Your task to perform on an android device: toggle translation in the chrome app Image 0: 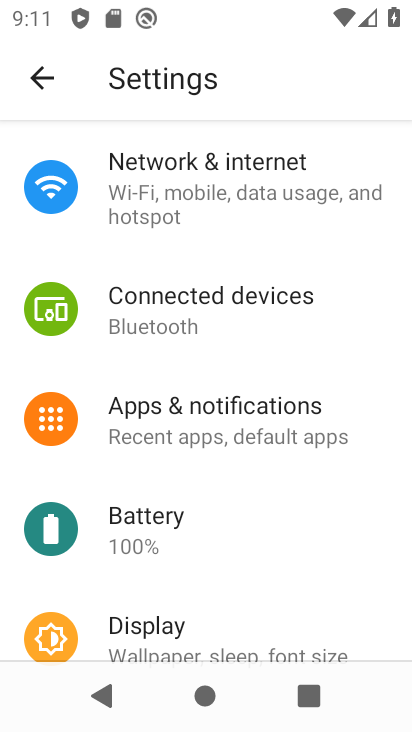
Step 0: press home button
Your task to perform on an android device: toggle translation in the chrome app Image 1: 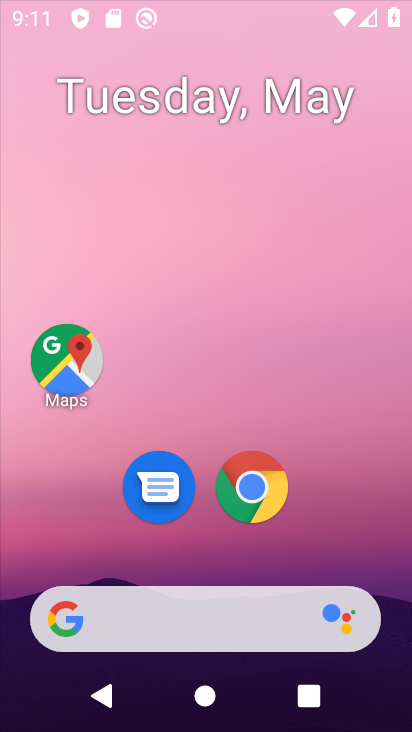
Step 1: drag from (183, 619) to (194, 0)
Your task to perform on an android device: toggle translation in the chrome app Image 2: 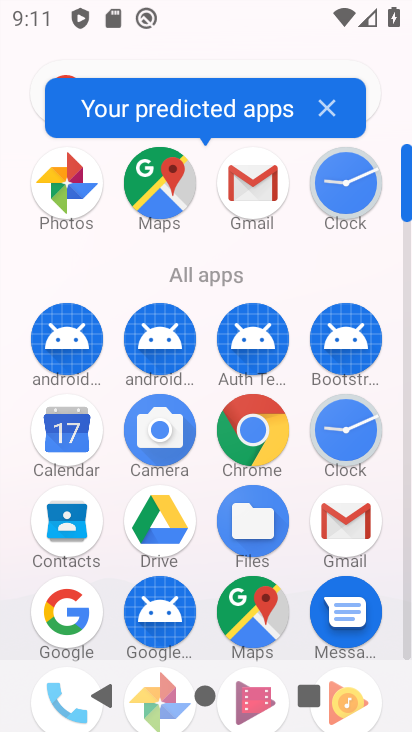
Step 2: click (260, 444)
Your task to perform on an android device: toggle translation in the chrome app Image 3: 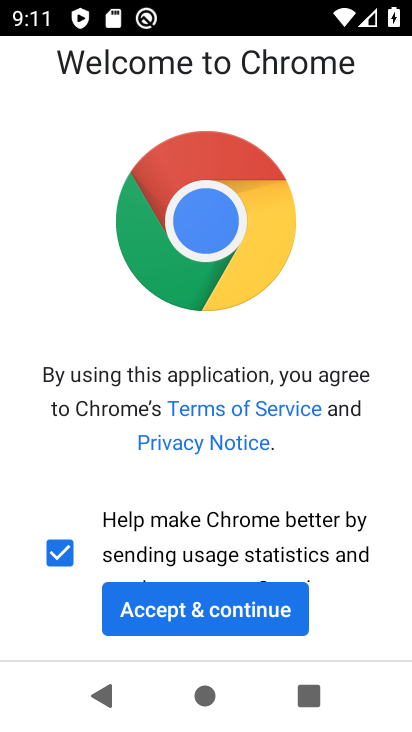
Step 3: click (155, 637)
Your task to perform on an android device: toggle translation in the chrome app Image 4: 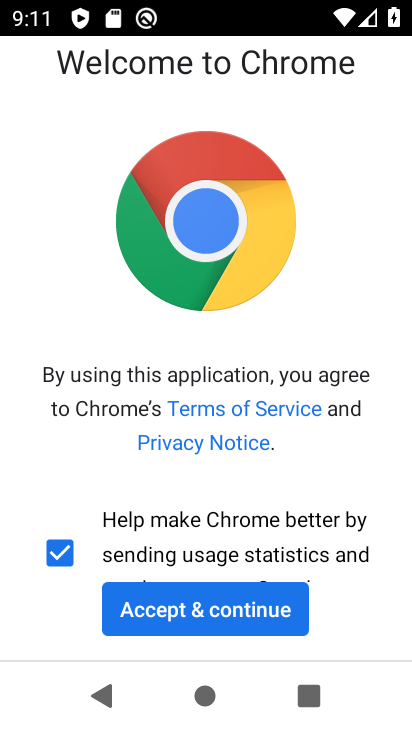
Step 4: click (159, 622)
Your task to perform on an android device: toggle translation in the chrome app Image 5: 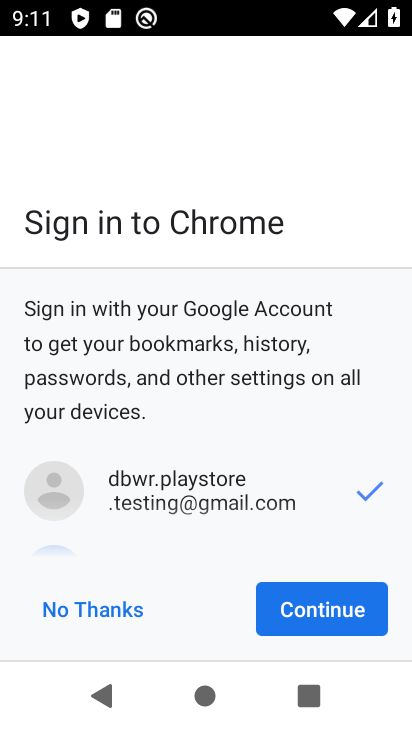
Step 5: click (310, 625)
Your task to perform on an android device: toggle translation in the chrome app Image 6: 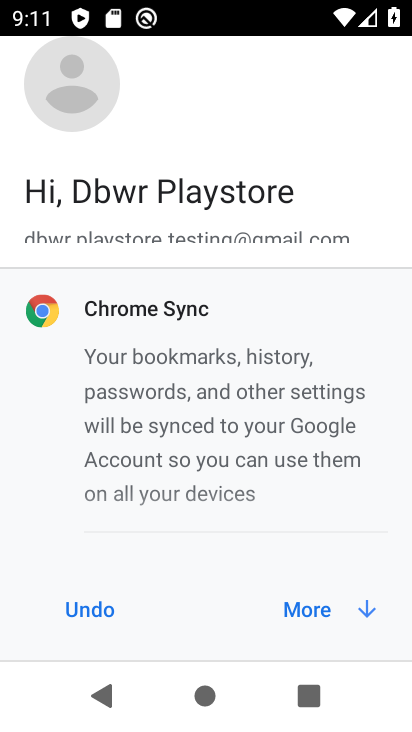
Step 6: click (319, 623)
Your task to perform on an android device: toggle translation in the chrome app Image 7: 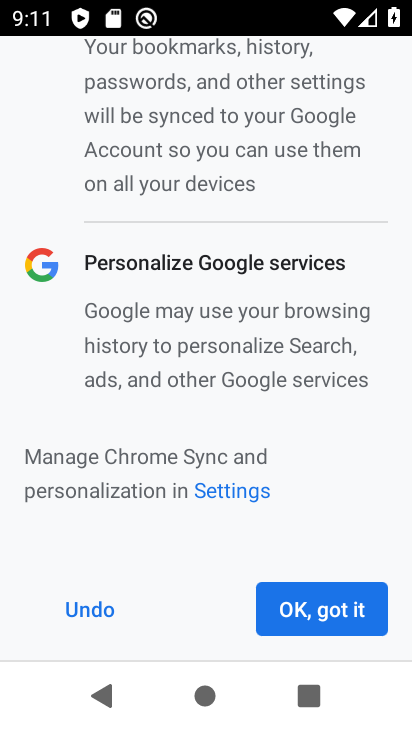
Step 7: click (318, 603)
Your task to perform on an android device: toggle translation in the chrome app Image 8: 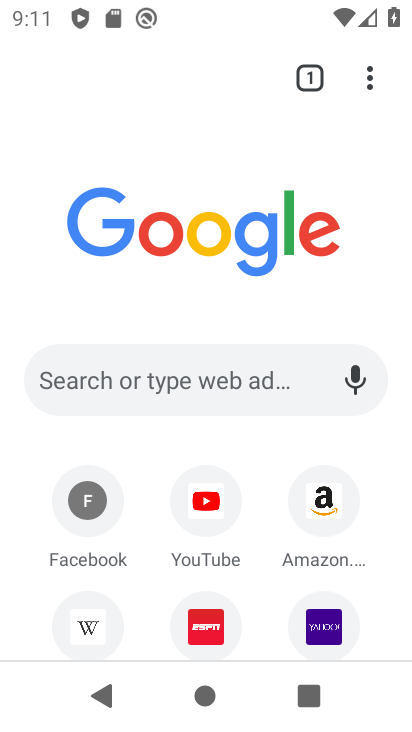
Step 8: drag from (269, 531) to (278, 295)
Your task to perform on an android device: toggle translation in the chrome app Image 9: 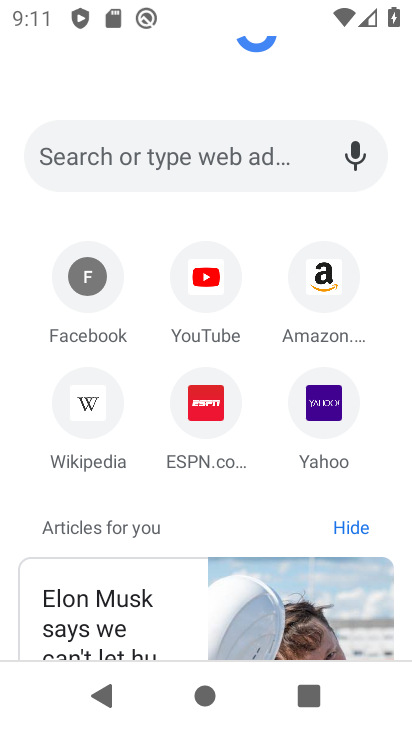
Step 9: drag from (275, 92) to (373, 555)
Your task to perform on an android device: toggle translation in the chrome app Image 10: 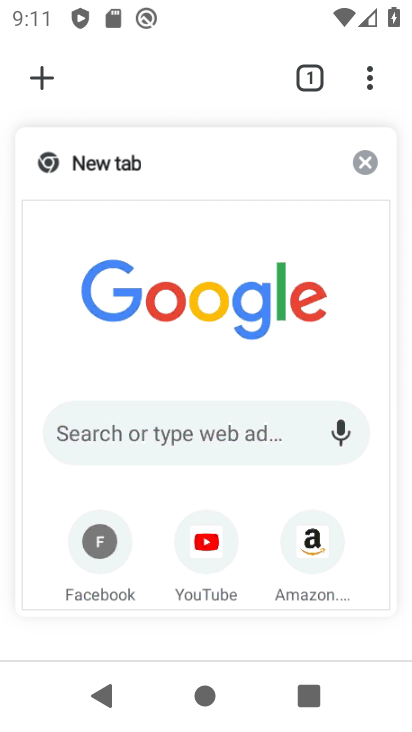
Step 10: click (309, 225)
Your task to perform on an android device: toggle translation in the chrome app Image 11: 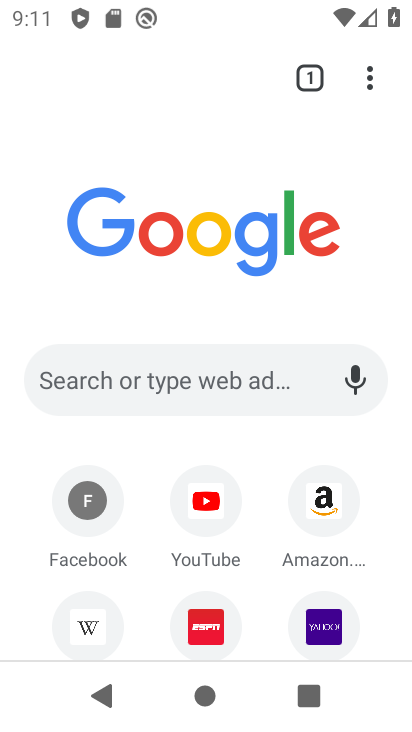
Step 11: click (379, 82)
Your task to perform on an android device: toggle translation in the chrome app Image 12: 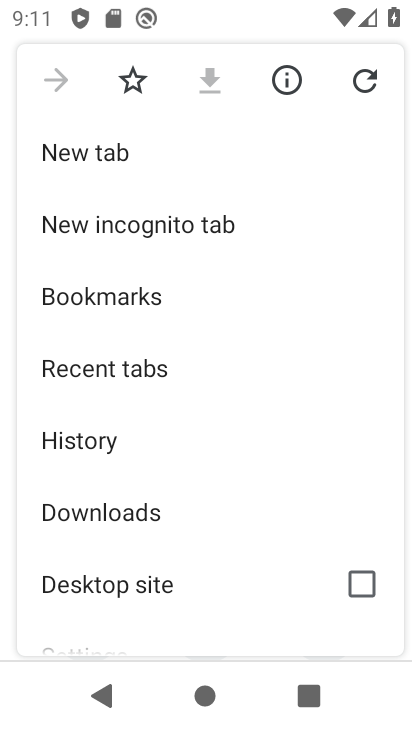
Step 12: drag from (221, 488) to (231, 147)
Your task to perform on an android device: toggle translation in the chrome app Image 13: 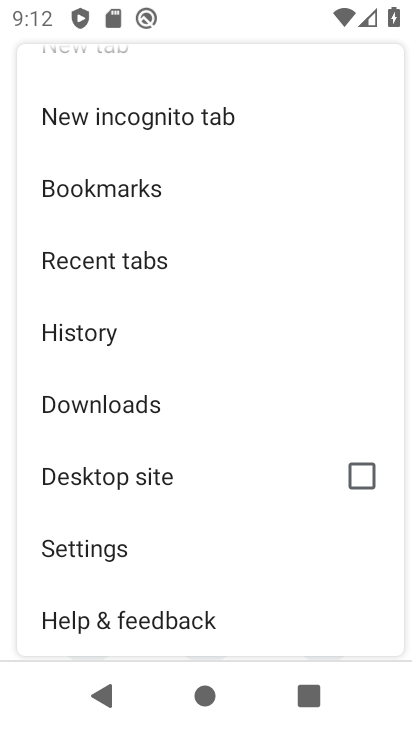
Step 13: click (175, 558)
Your task to perform on an android device: toggle translation in the chrome app Image 14: 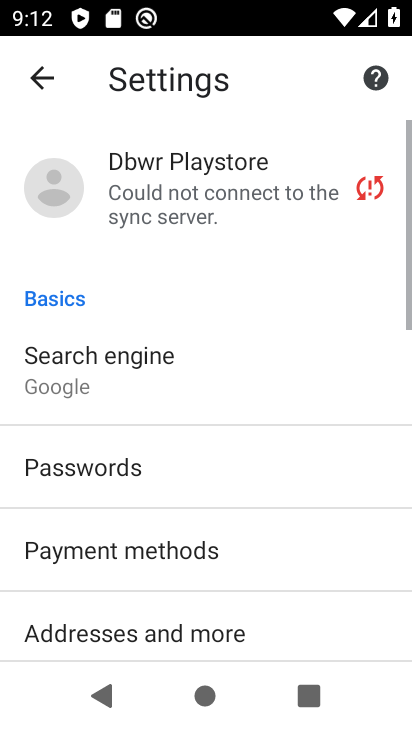
Step 14: drag from (195, 573) to (254, 118)
Your task to perform on an android device: toggle translation in the chrome app Image 15: 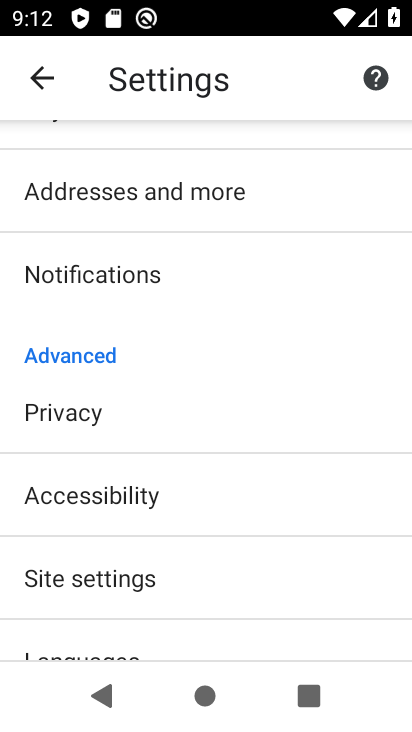
Step 15: drag from (188, 548) to (270, 125)
Your task to perform on an android device: toggle translation in the chrome app Image 16: 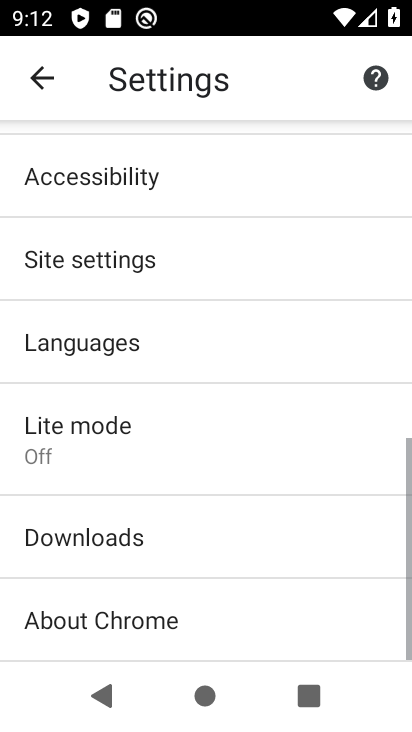
Step 16: click (156, 348)
Your task to perform on an android device: toggle translation in the chrome app Image 17: 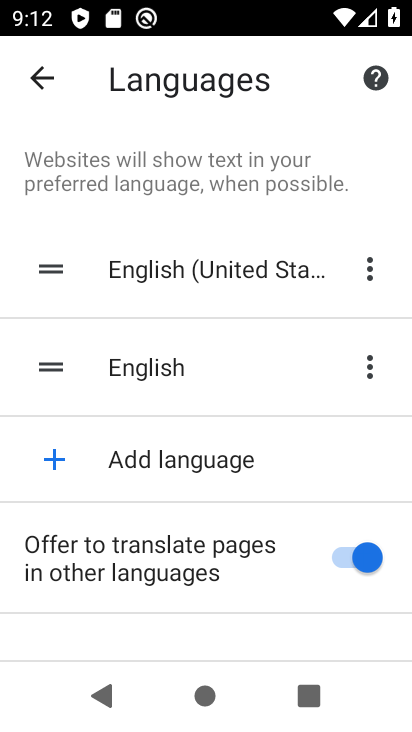
Step 17: click (320, 552)
Your task to perform on an android device: toggle translation in the chrome app Image 18: 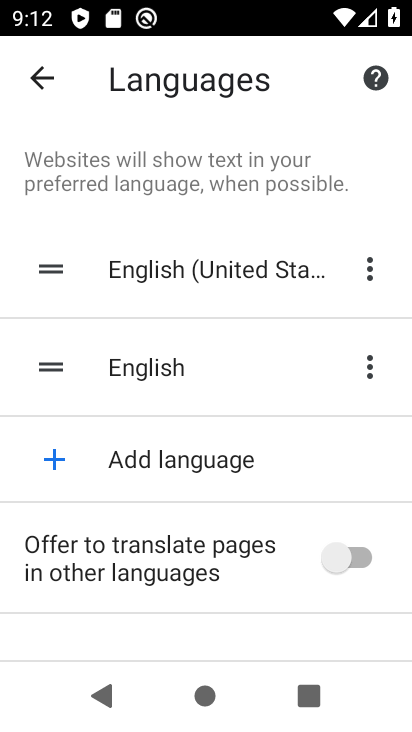
Step 18: task complete